Your task to perform on an android device: Open notification settings Image 0: 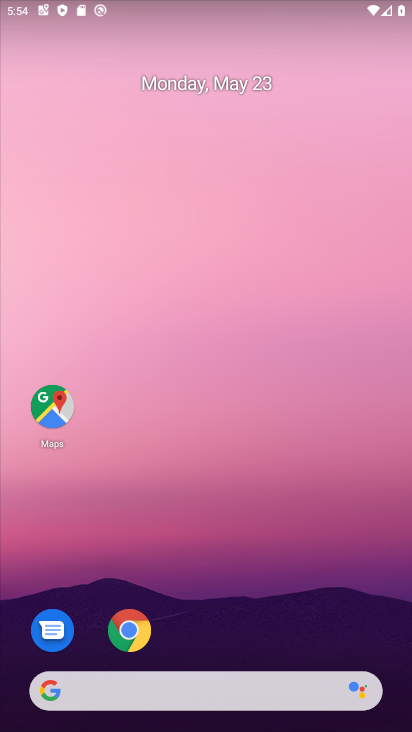
Step 0: click (266, 5)
Your task to perform on an android device: Open notification settings Image 1: 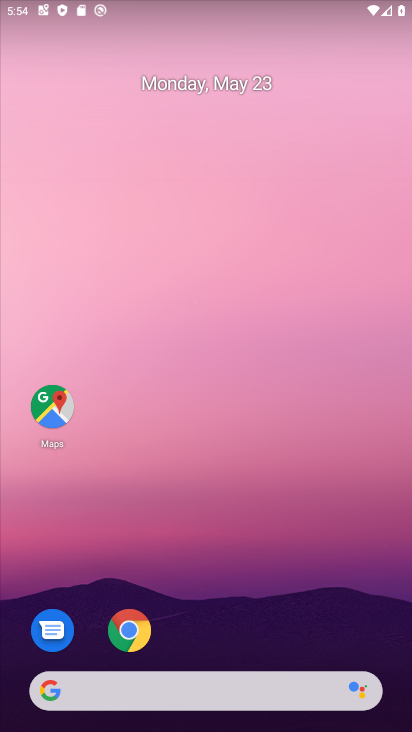
Step 1: drag from (197, 237) to (192, 50)
Your task to perform on an android device: Open notification settings Image 2: 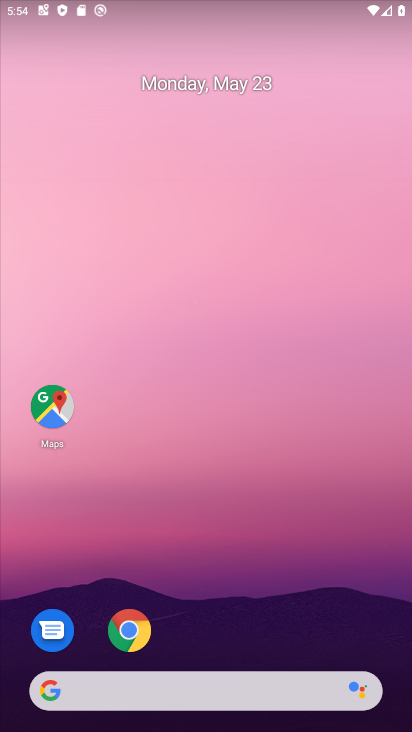
Step 2: click (211, 10)
Your task to perform on an android device: Open notification settings Image 3: 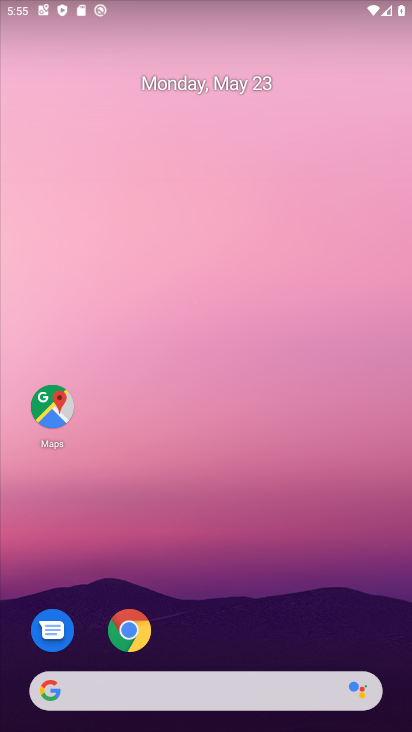
Step 3: drag from (310, 569) to (274, 5)
Your task to perform on an android device: Open notification settings Image 4: 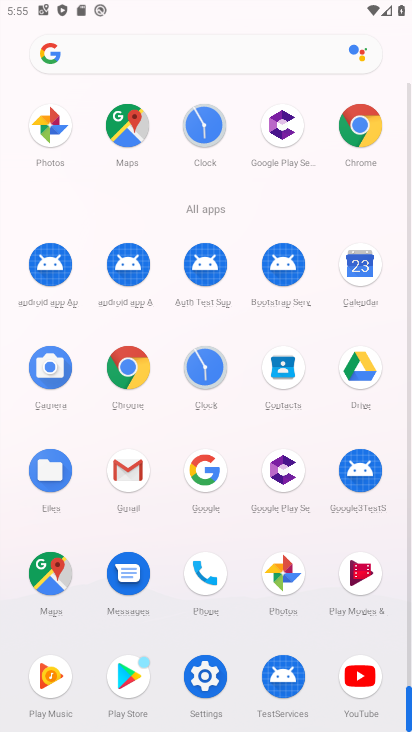
Step 4: drag from (2, 576) to (26, 289)
Your task to perform on an android device: Open notification settings Image 5: 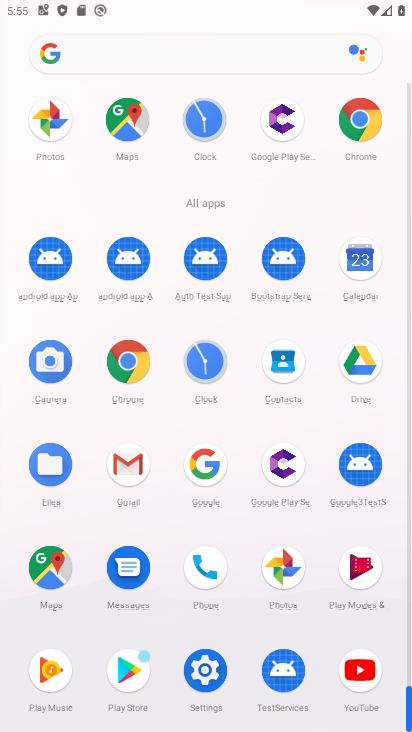
Step 5: click (207, 670)
Your task to perform on an android device: Open notification settings Image 6: 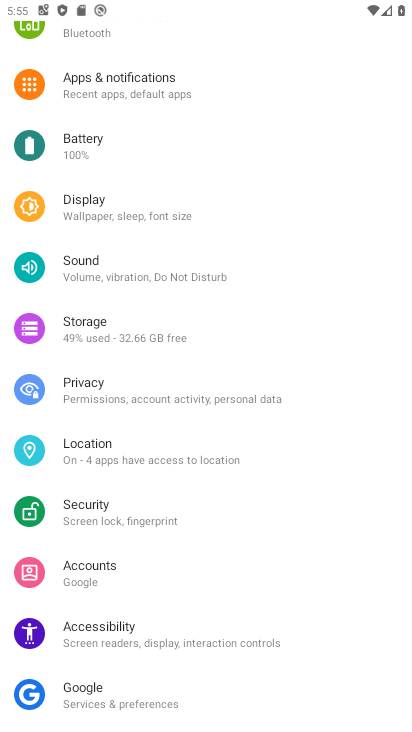
Step 6: drag from (170, 250) to (127, 561)
Your task to perform on an android device: Open notification settings Image 7: 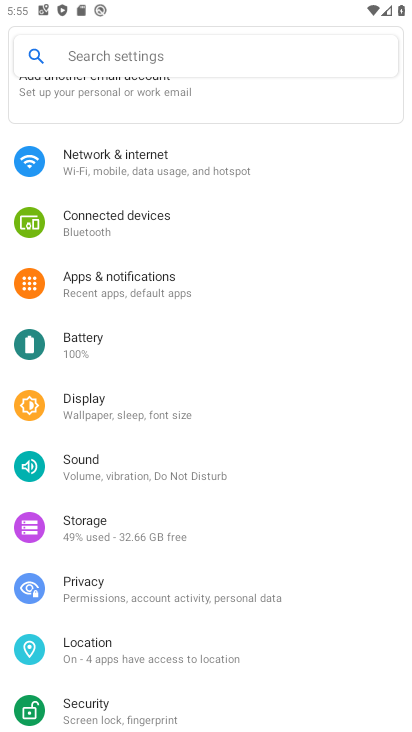
Step 7: click (168, 154)
Your task to perform on an android device: Open notification settings Image 8: 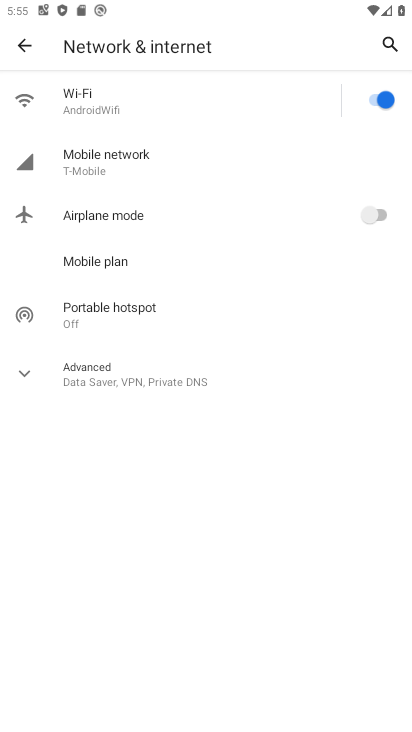
Step 8: click (22, 368)
Your task to perform on an android device: Open notification settings Image 9: 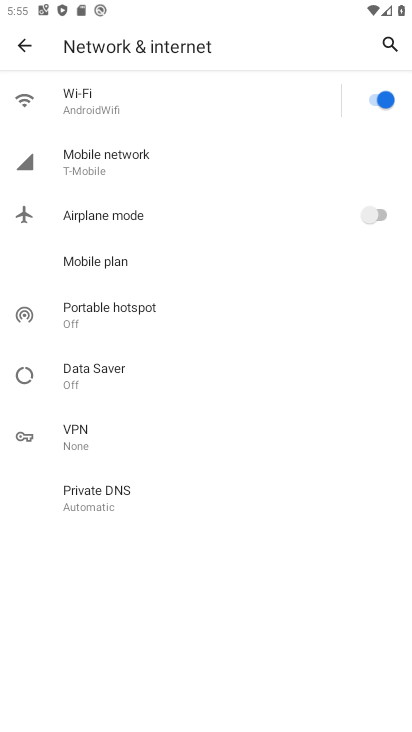
Step 9: click (127, 106)
Your task to perform on an android device: Open notification settings Image 10: 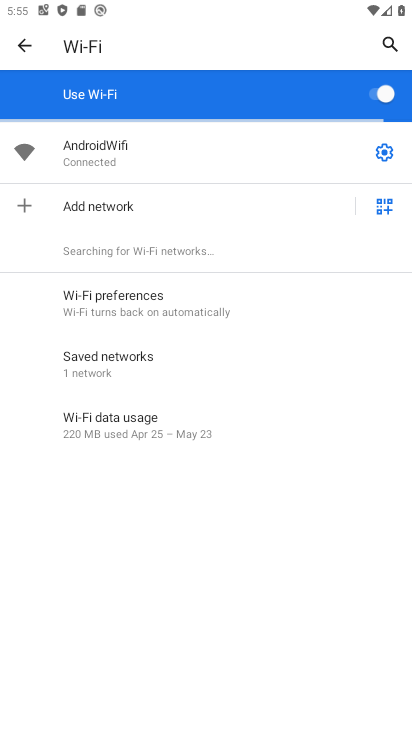
Step 10: click (32, 43)
Your task to perform on an android device: Open notification settings Image 11: 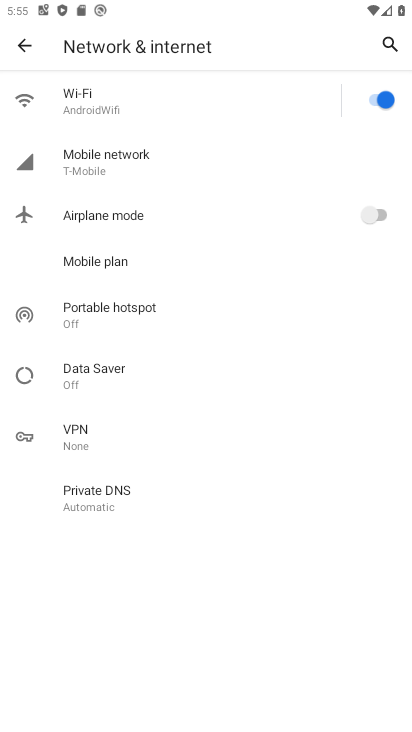
Step 11: task complete